Your task to perform on an android device: open app "Google Keep" (install if not already installed) Image 0: 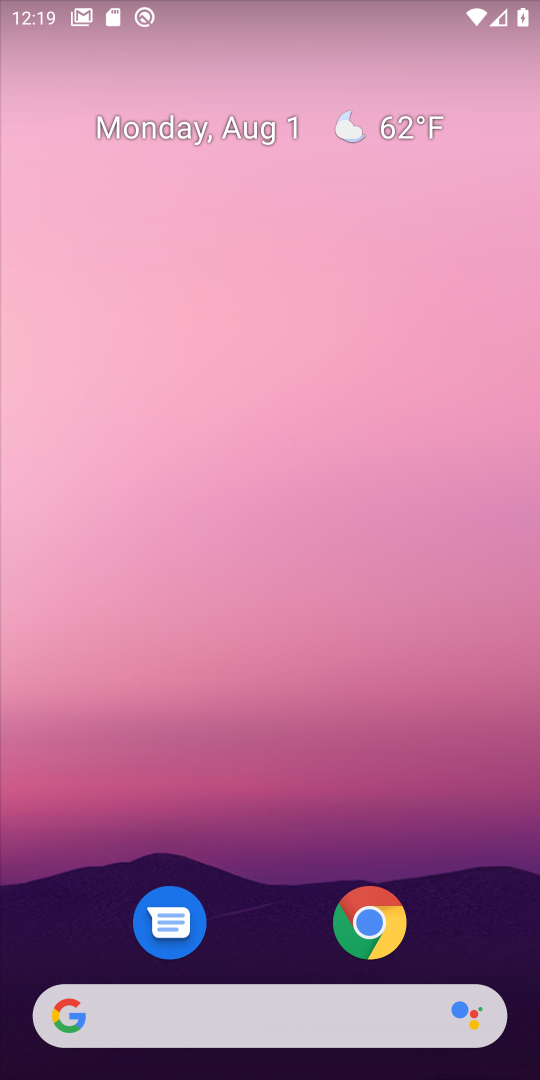
Step 0: drag from (275, 876) to (286, 70)
Your task to perform on an android device: open app "Google Keep" (install if not already installed) Image 1: 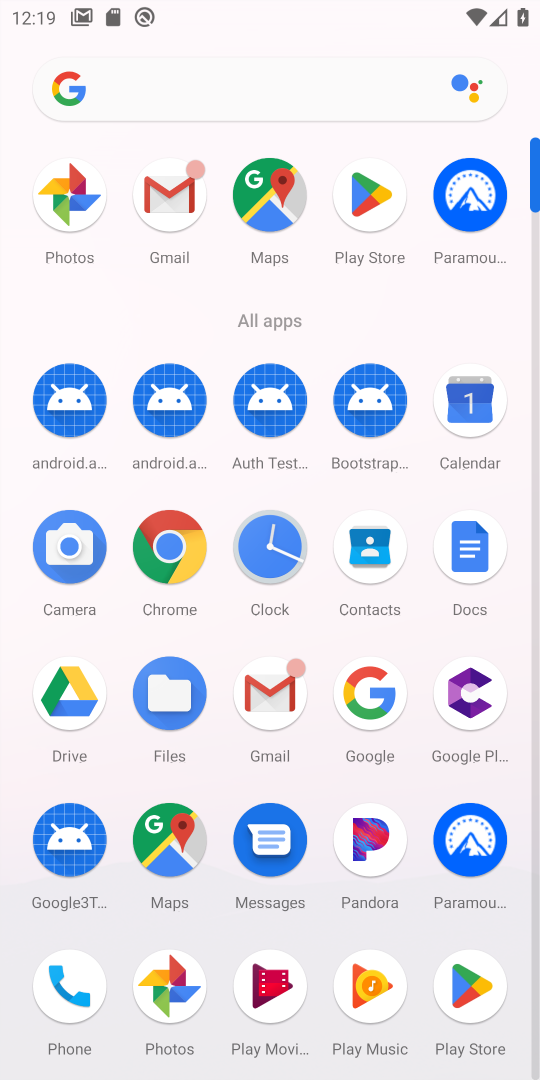
Step 1: click (351, 204)
Your task to perform on an android device: open app "Google Keep" (install if not already installed) Image 2: 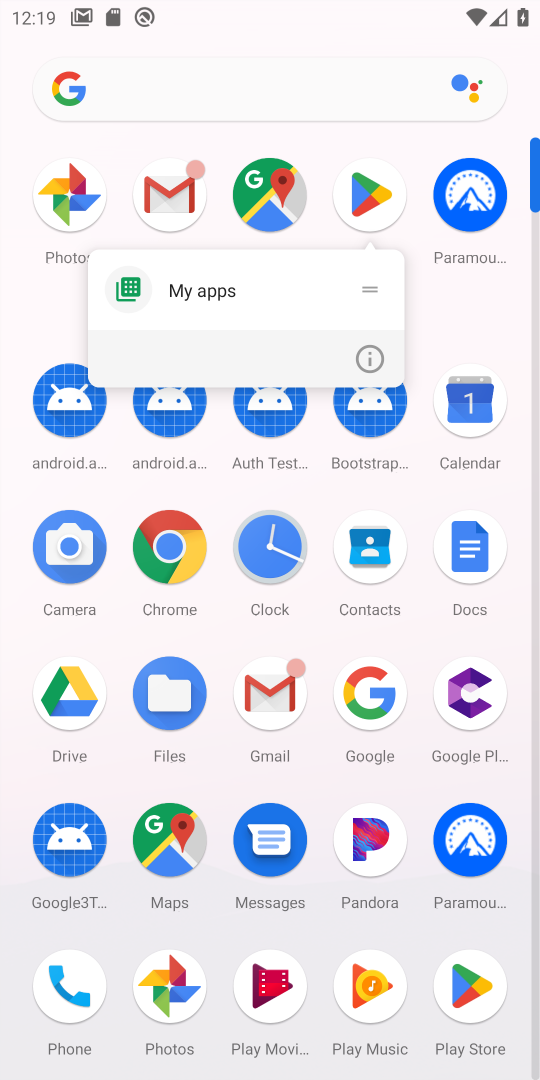
Step 2: click (351, 204)
Your task to perform on an android device: open app "Google Keep" (install if not already installed) Image 3: 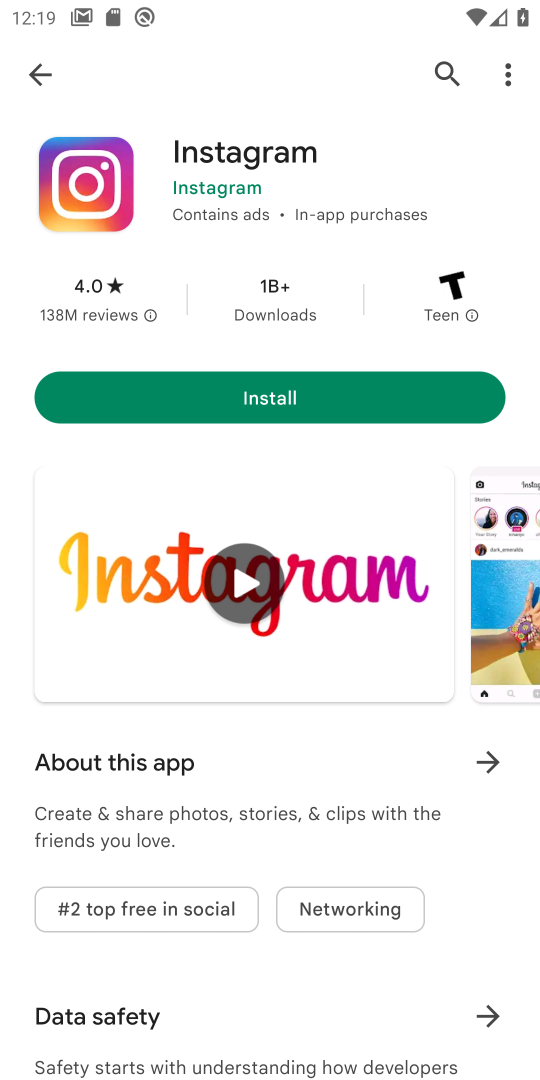
Step 3: drag from (443, 68) to (493, 68)
Your task to perform on an android device: open app "Google Keep" (install if not already installed) Image 4: 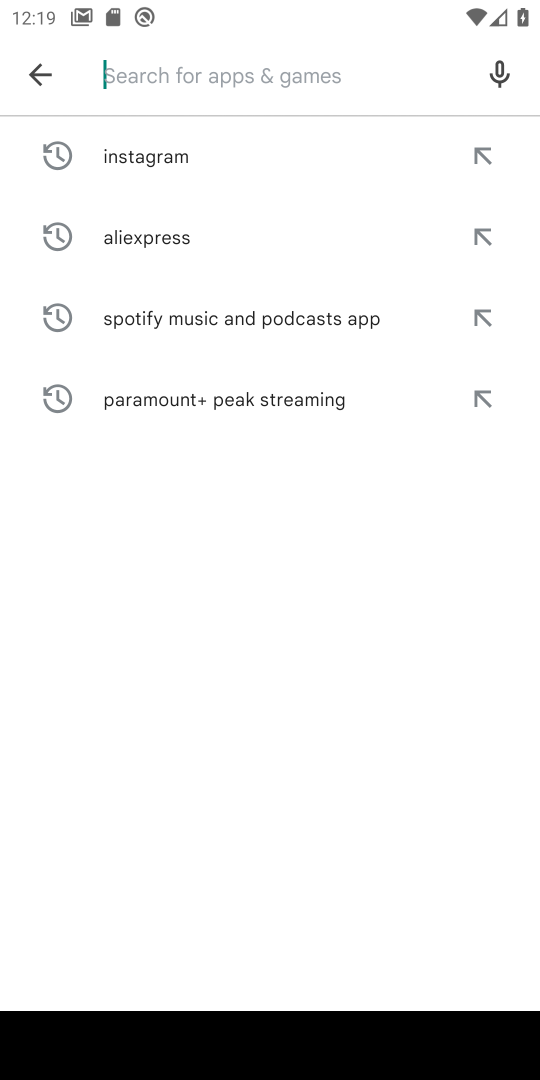
Step 4: type ""Google Keep"
Your task to perform on an android device: open app "Google Keep" (install if not already installed) Image 5: 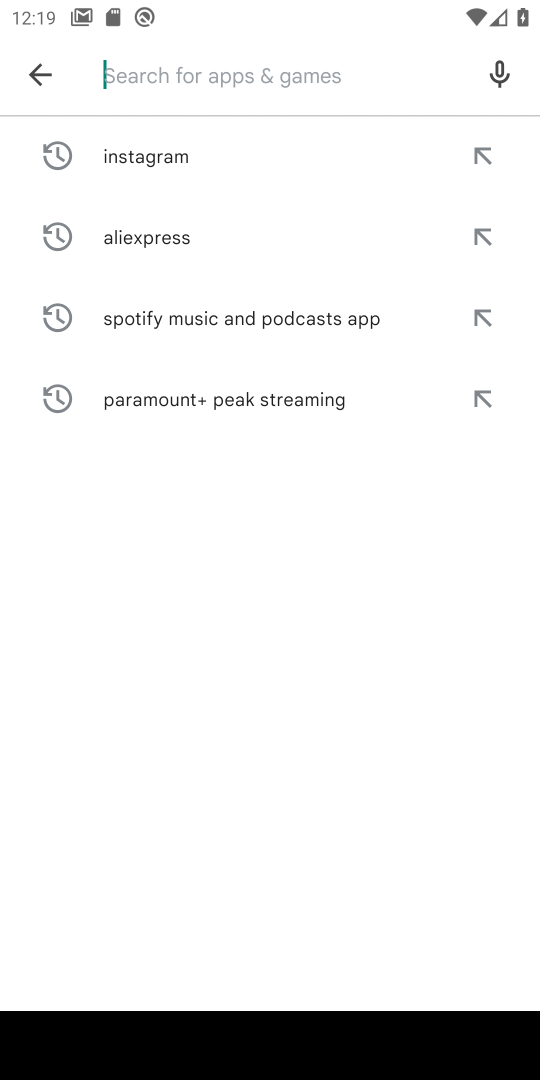
Step 5: type ""
Your task to perform on an android device: open app "Google Keep" (install if not already installed) Image 6: 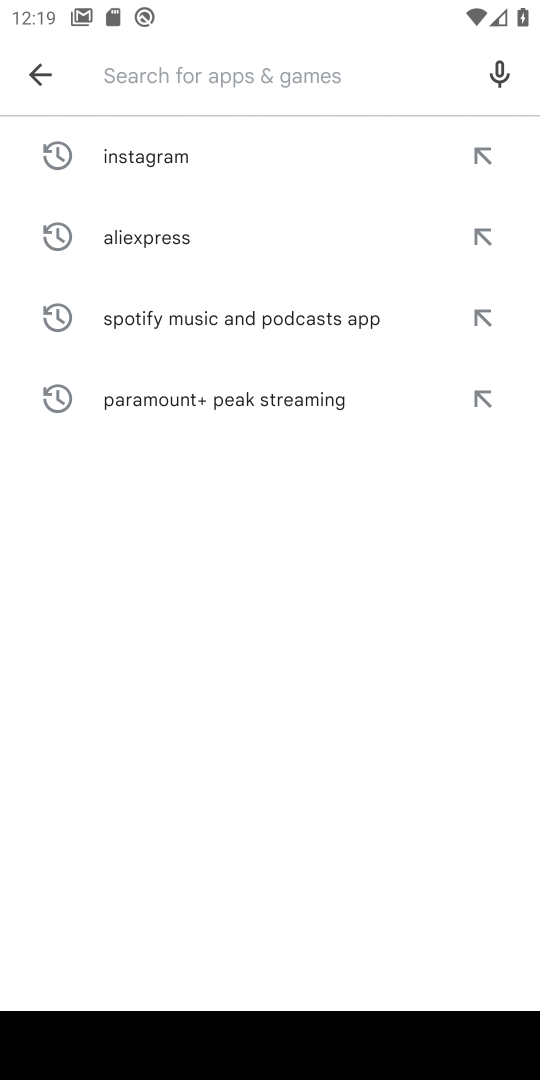
Step 6: click (167, 82)
Your task to perform on an android device: open app "Google Keep" (install if not already installed) Image 7: 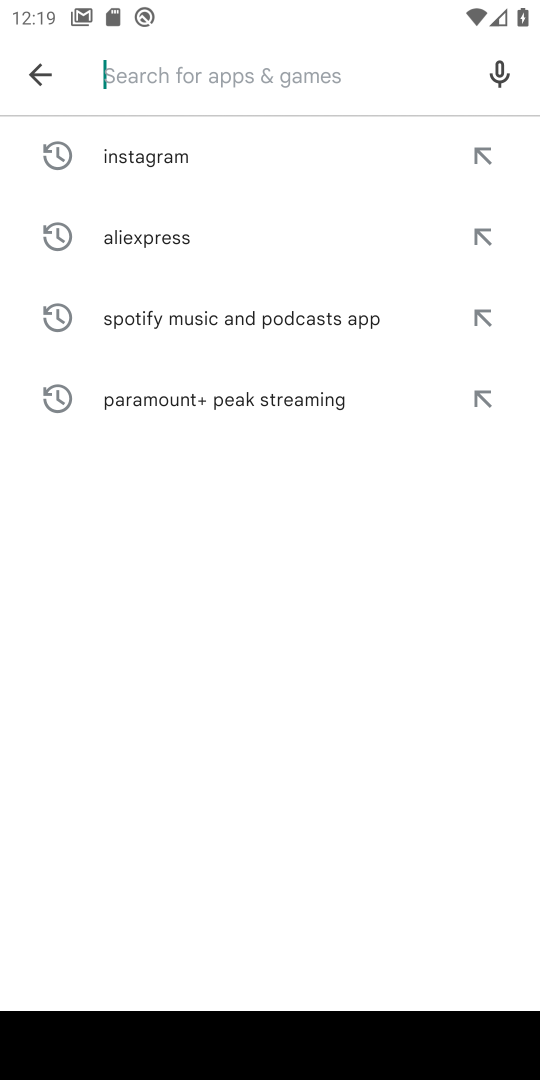
Step 7: type "Google Keep"
Your task to perform on an android device: open app "Google Keep" (install if not already installed) Image 8: 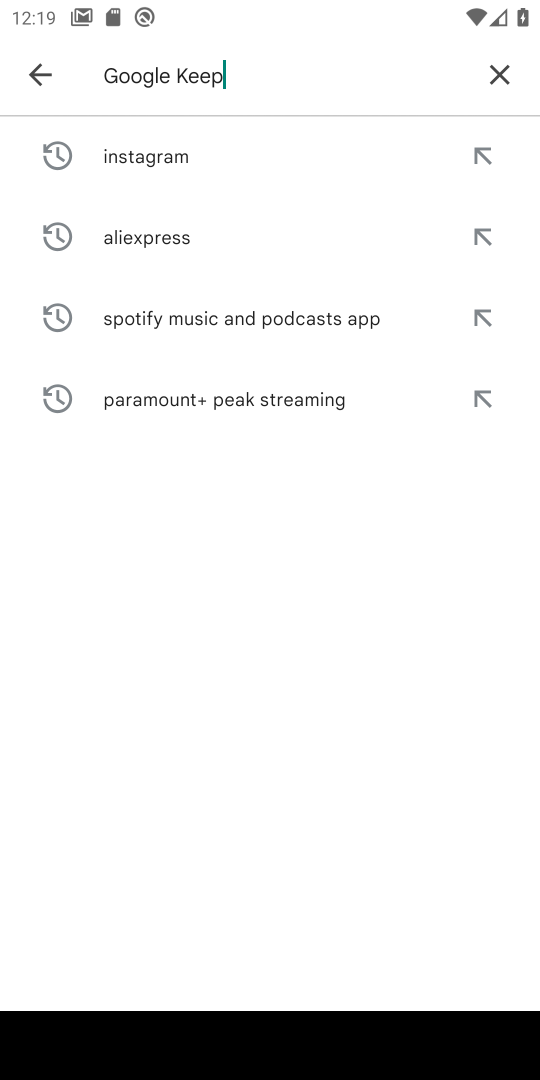
Step 8: type ""
Your task to perform on an android device: open app "Google Keep" (install if not already installed) Image 9: 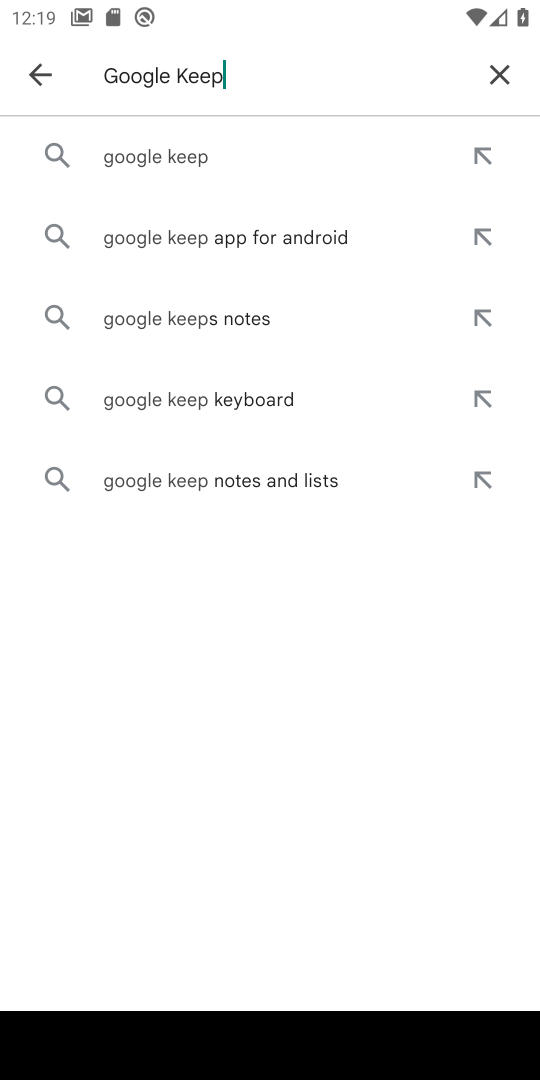
Step 9: click (193, 161)
Your task to perform on an android device: open app "Google Keep" (install if not already installed) Image 10: 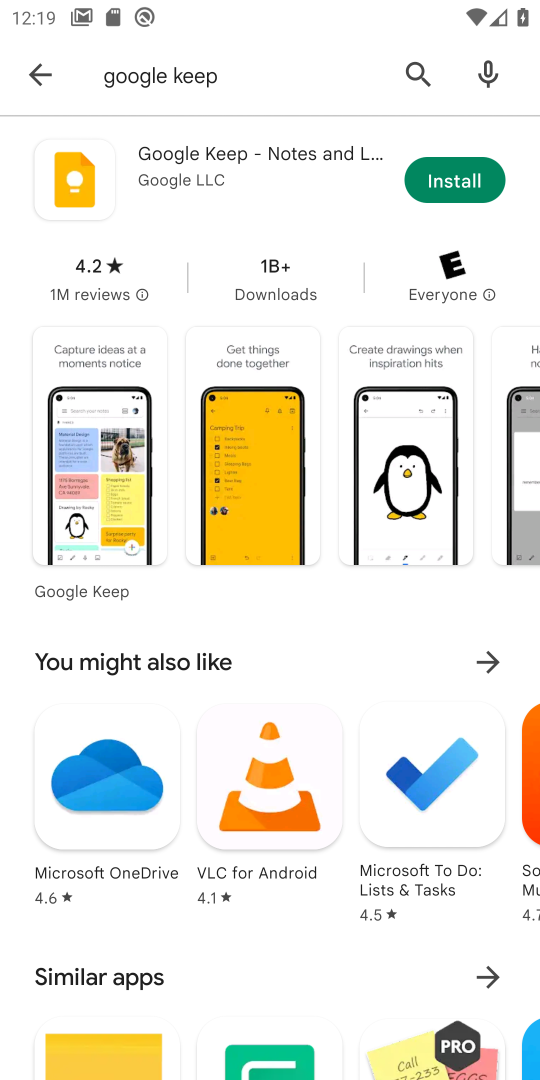
Step 10: click (426, 175)
Your task to perform on an android device: open app "Google Keep" (install if not already installed) Image 11: 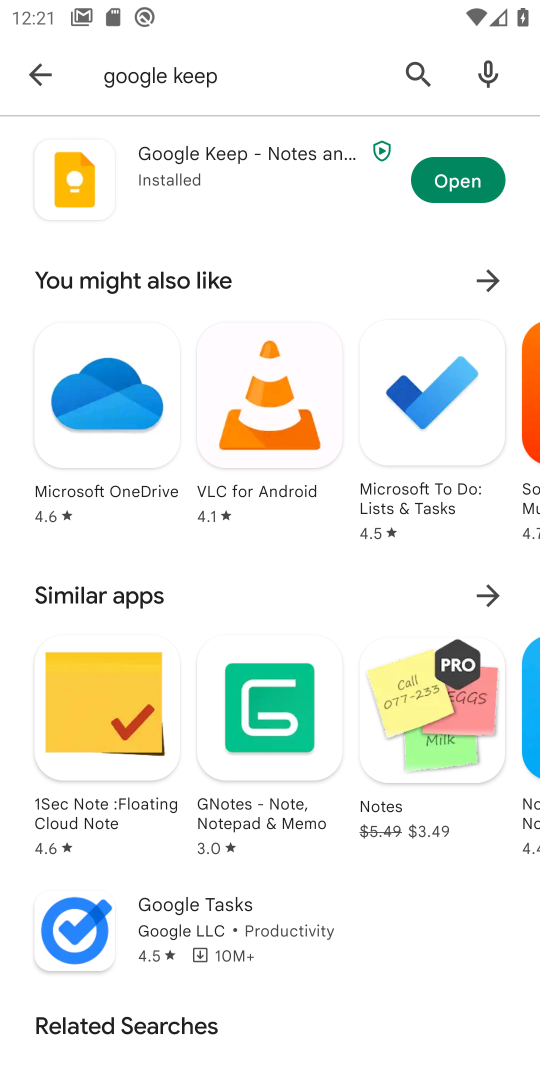
Step 11: click (460, 180)
Your task to perform on an android device: open app "Google Keep" (install if not already installed) Image 12: 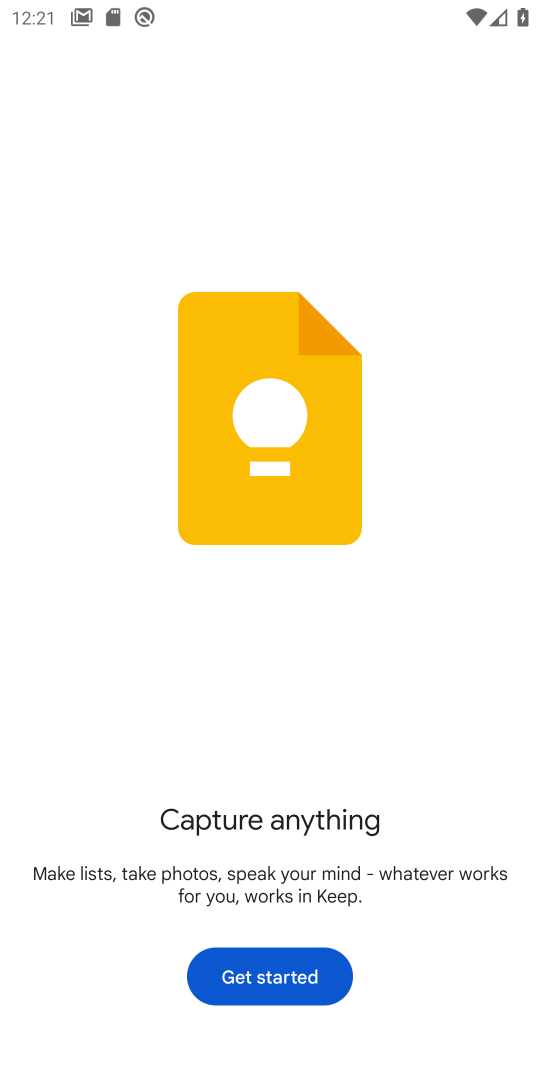
Step 12: task complete